Your task to perform on an android device: read, delete, or share a saved page in the chrome app Image 0: 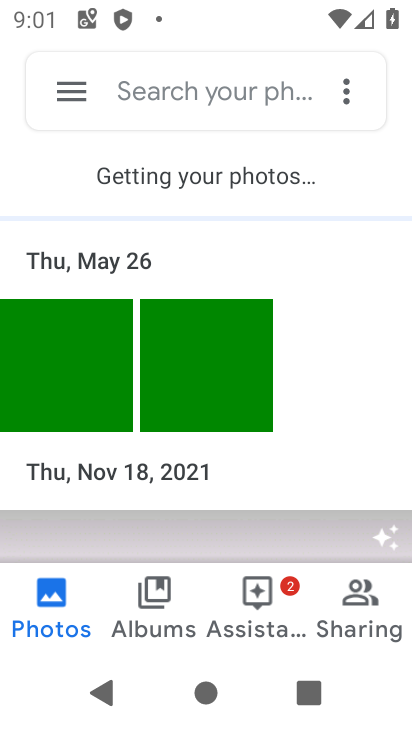
Step 0: press home button
Your task to perform on an android device: read, delete, or share a saved page in the chrome app Image 1: 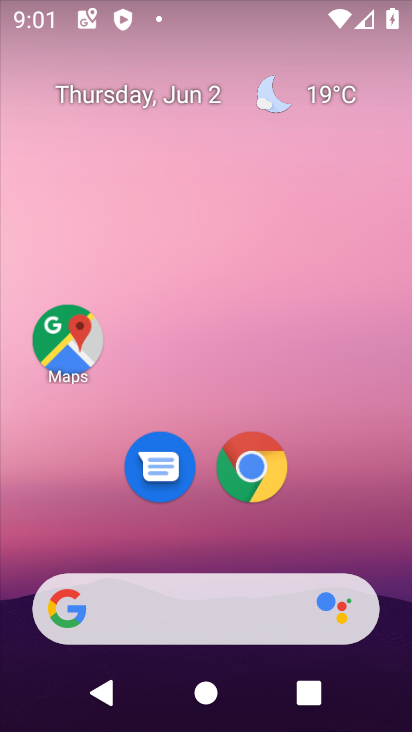
Step 1: click (244, 471)
Your task to perform on an android device: read, delete, or share a saved page in the chrome app Image 2: 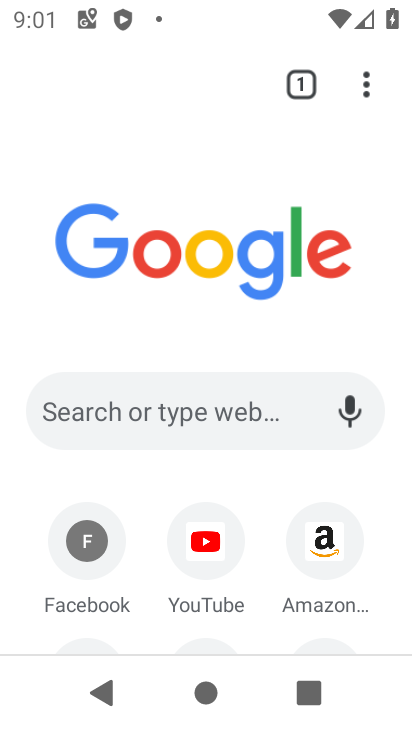
Step 2: click (360, 92)
Your task to perform on an android device: read, delete, or share a saved page in the chrome app Image 3: 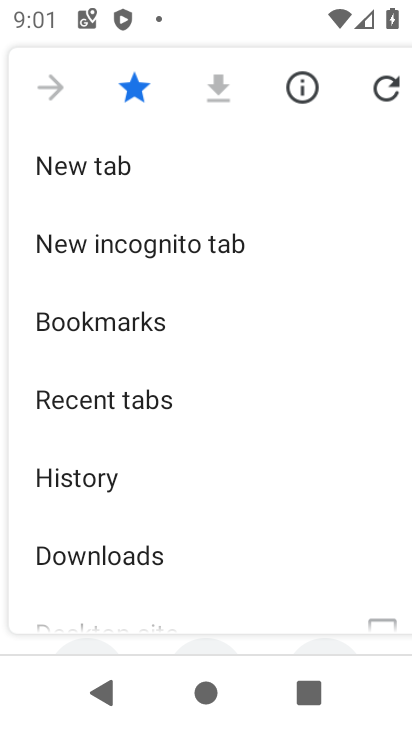
Step 3: task complete